Your task to perform on an android device: Go to notification settings Image 0: 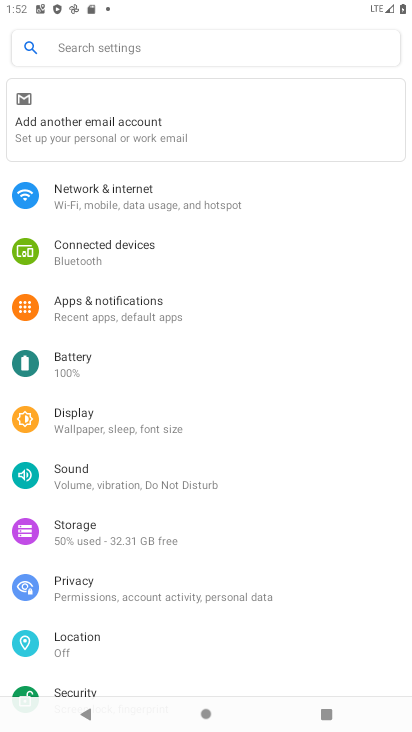
Step 0: click (148, 314)
Your task to perform on an android device: Go to notification settings Image 1: 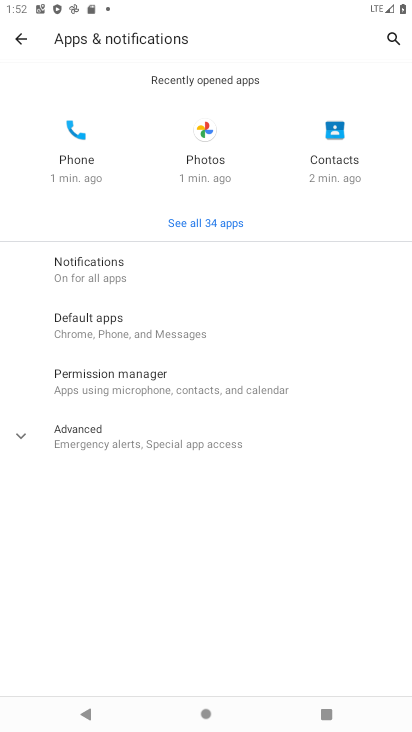
Step 1: click (125, 263)
Your task to perform on an android device: Go to notification settings Image 2: 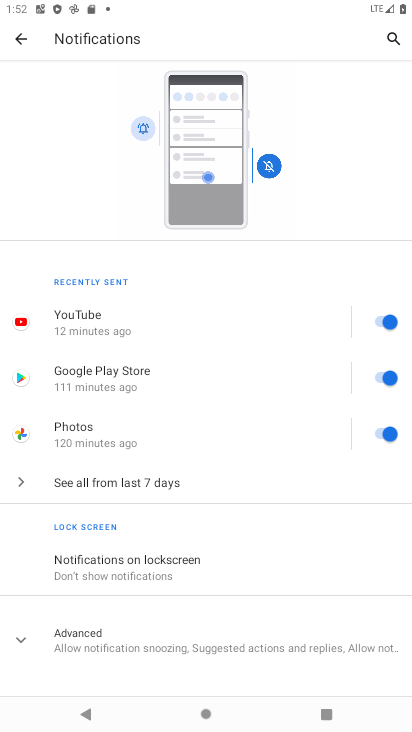
Step 2: task complete